Your task to perform on an android device: add a contact in the contacts app Image 0: 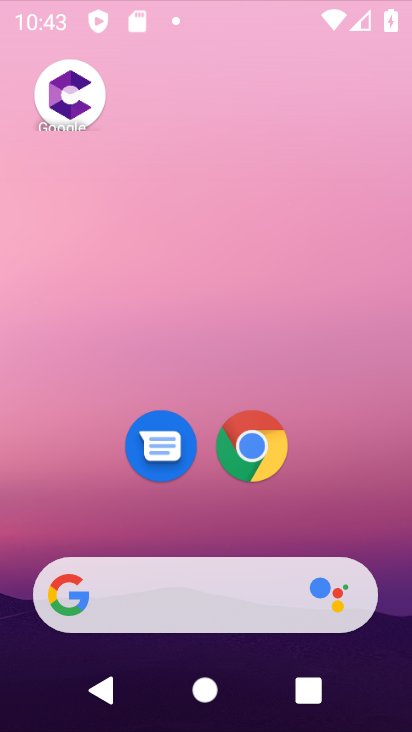
Step 0: click (261, 114)
Your task to perform on an android device: add a contact in the contacts app Image 1: 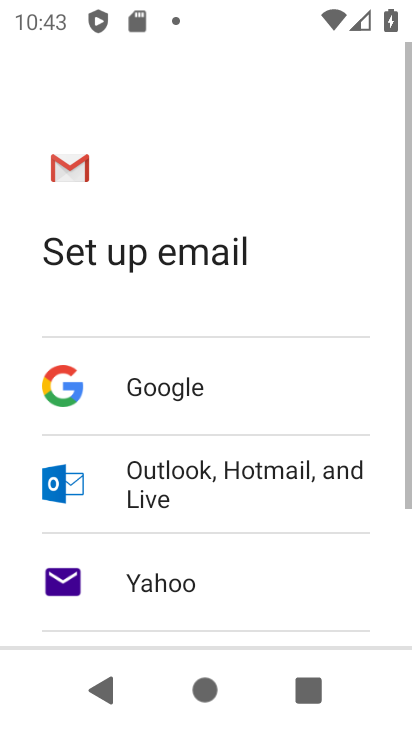
Step 1: drag from (191, 533) to (260, 78)
Your task to perform on an android device: add a contact in the contacts app Image 2: 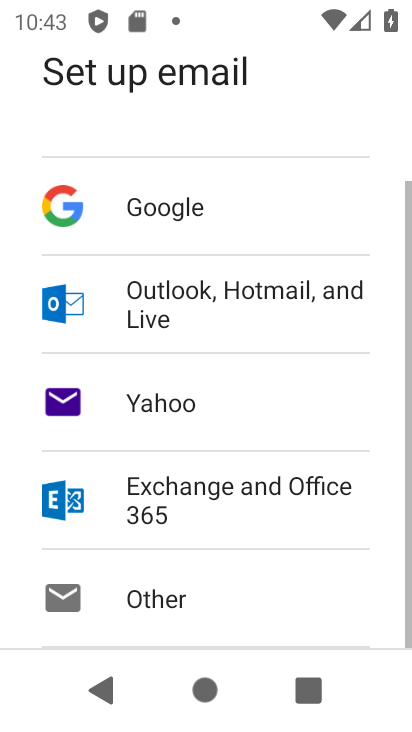
Step 2: press home button
Your task to perform on an android device: add a contact in the contacts app Image 3: 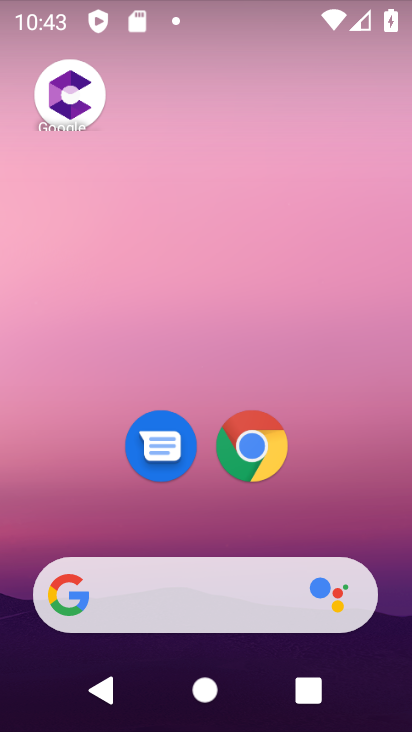
Step 3: drag from (192, 516) to (226, 159)
Your task to perform on an android device: add a contact in the contacts app Image 4: 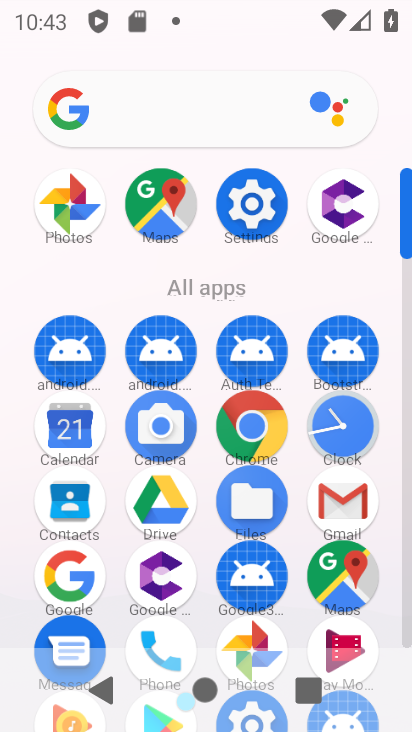
Step 4: drag from (205, 632) to (228, 236)
Your task to perform on an android device: add a contact in the contacts app Image 5: 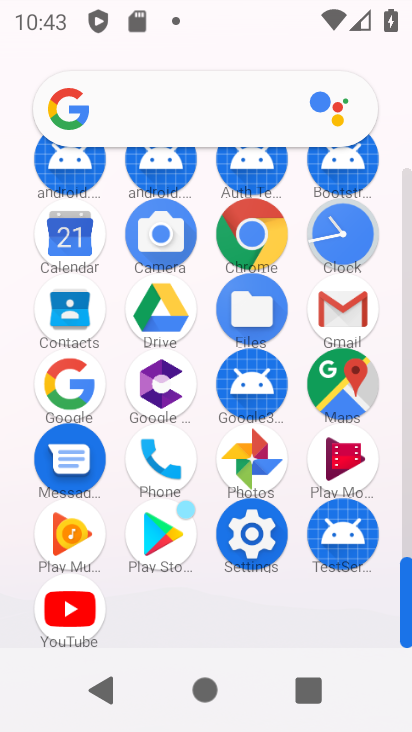
Step 5: click (83, 308)
Your task to perform on an android device: add a contact in the contacts app Image 6: 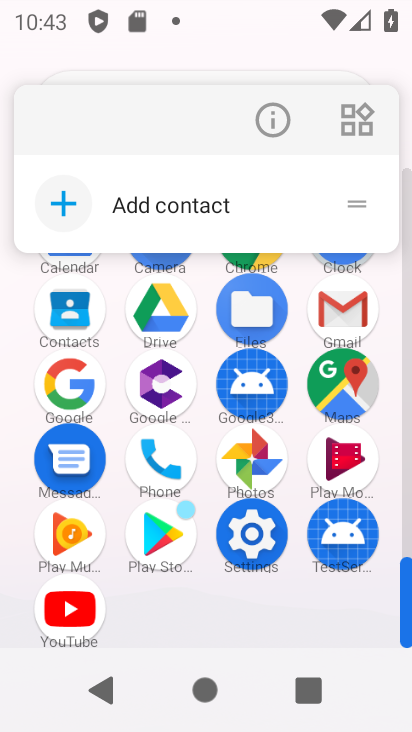
Step 6: click (276, 137)
Your task to perform on an android device: add a contact in the contacts app Image 7: 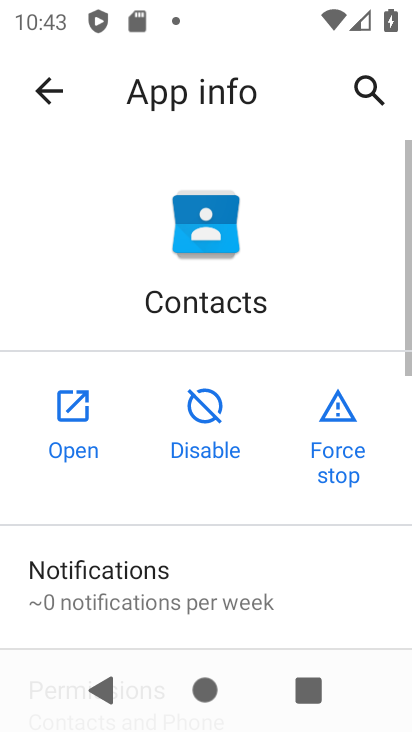
Step 7: click (94, 391)
Your task to perform on an android device: add a contact in the contacts app Image 8: 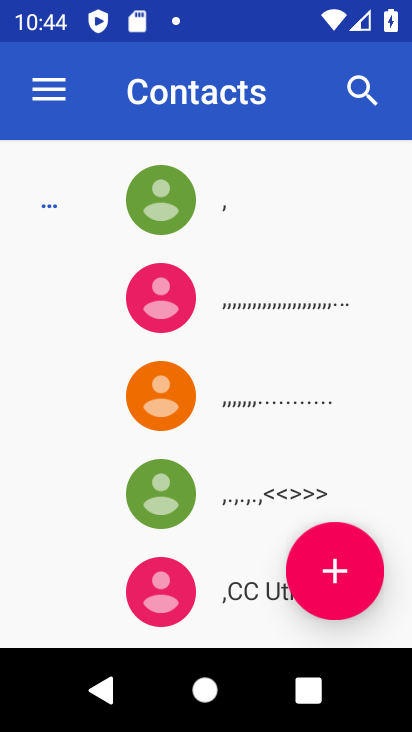
Step 8: click (338, 553)
Your task to perform on an android device: add a contact in the contacts app Image 9: 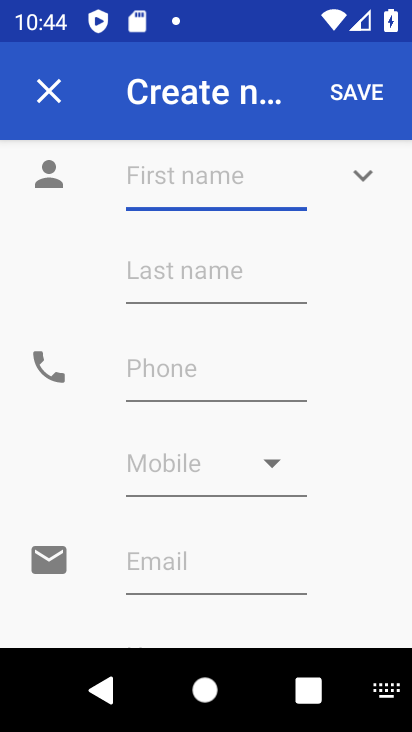
Step 9: type "maurya"
Your task to perform on an android device: add a contact in the contacts app Image 10: 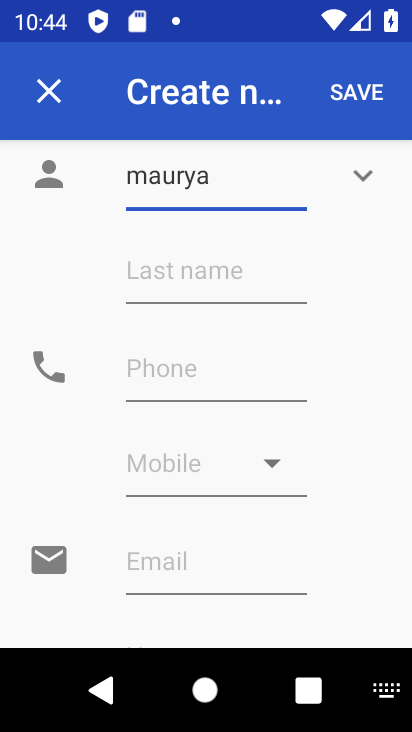
Step 10: click (217, 372)
Your task to perform on an android device: add a contact in the contacts app Image 11: 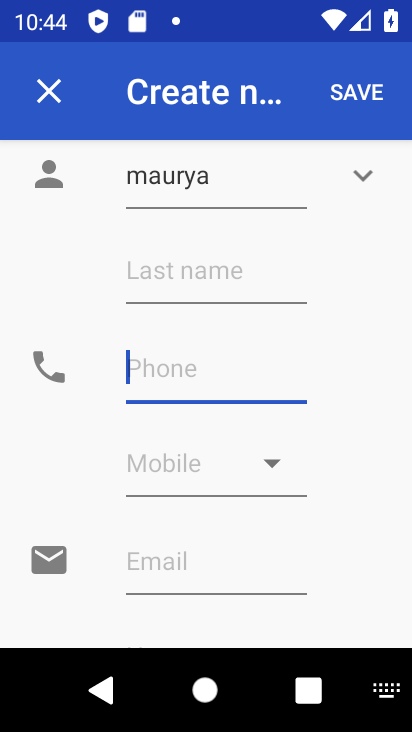
Step 11: type "uqieuq"
Your task to perform on an android device: add a contact in the contacts app Image 12: 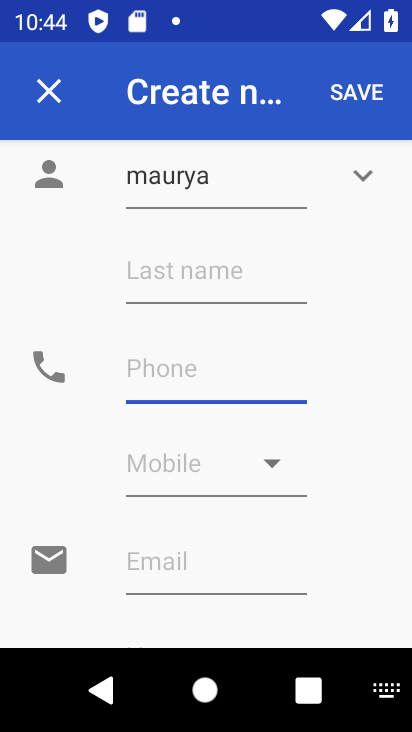
Step 12: type "17381732"
Your task to perform on an android device: add a contact in the contacts app Image 13: 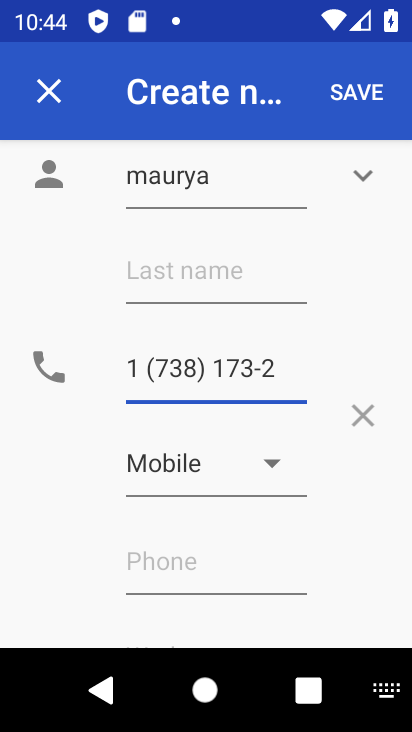
Step 13: click (344, 89)
Your task to perform on an android device: add a contact in the contacts app Image 14: 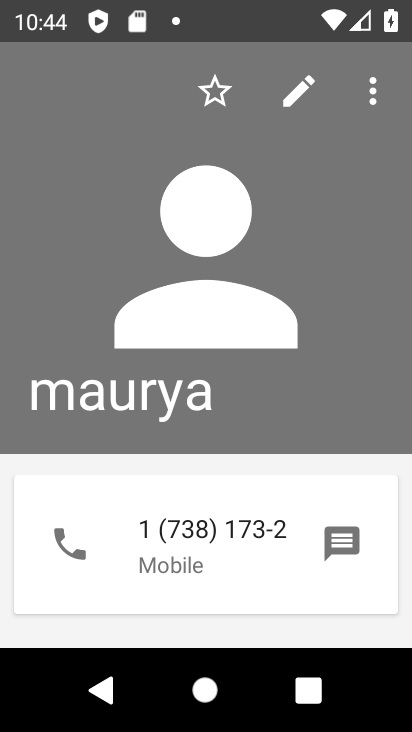
Step 14: task complete